Your task to perform on an android device: Open display settings Image 0: 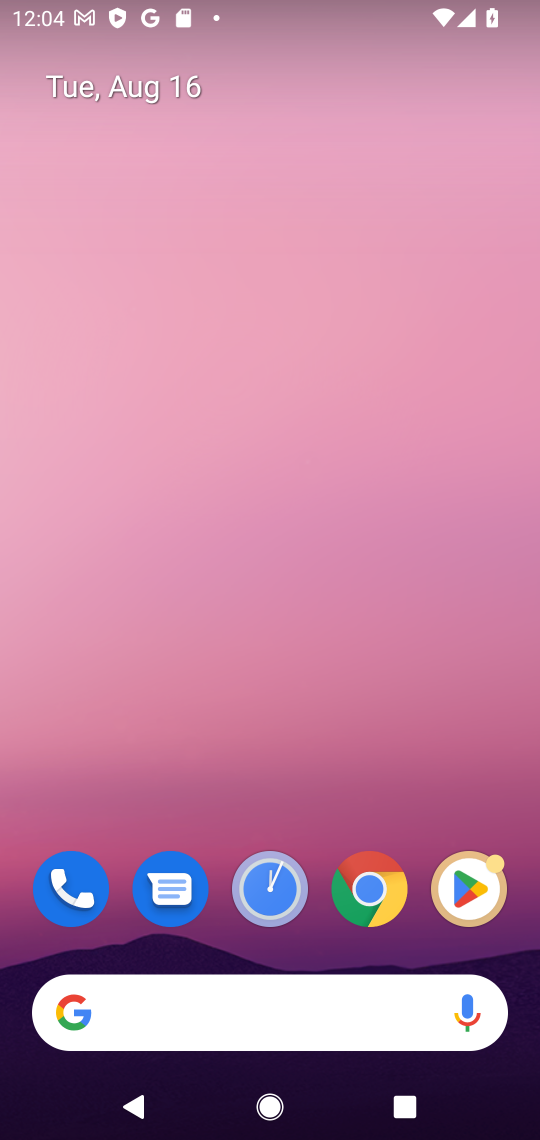
Step 0: drag from (245, 1010) to (226, 74)
Your task to perform on an android device: Open display settings Image 1: 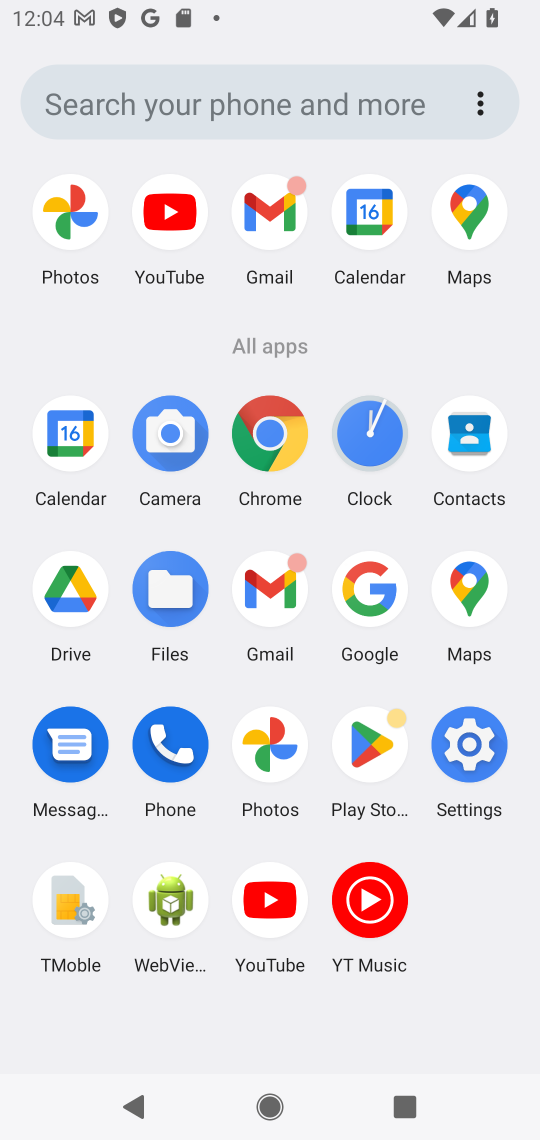
Step 1: click (474, 738)
Your task to perform on an android device: Open display settings Image 2: 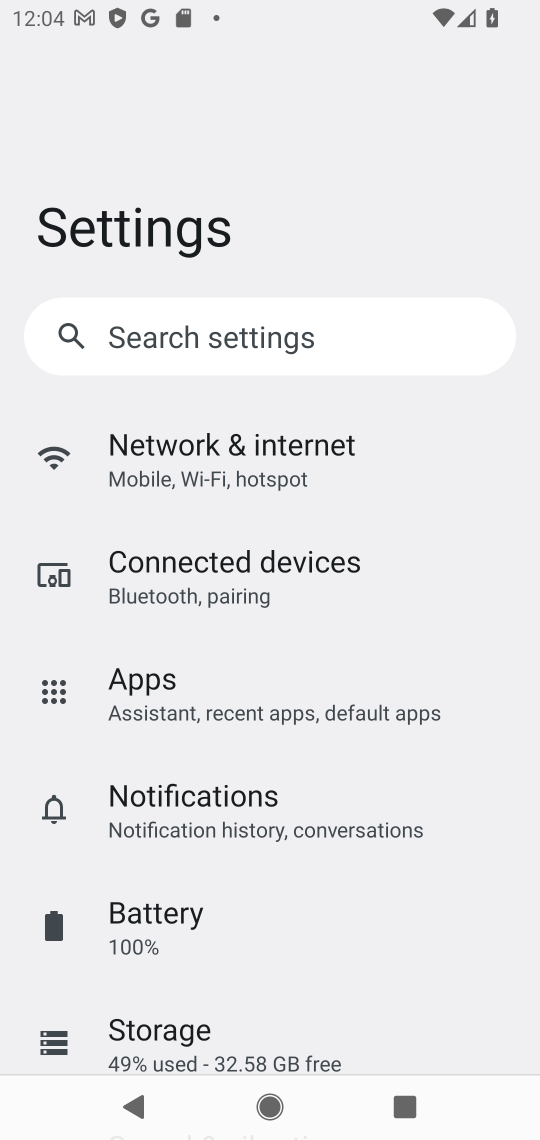
Step 2: drag from (218, 997) to (198, 315)
Your task to perform on an android device: Open display settings Image 3: 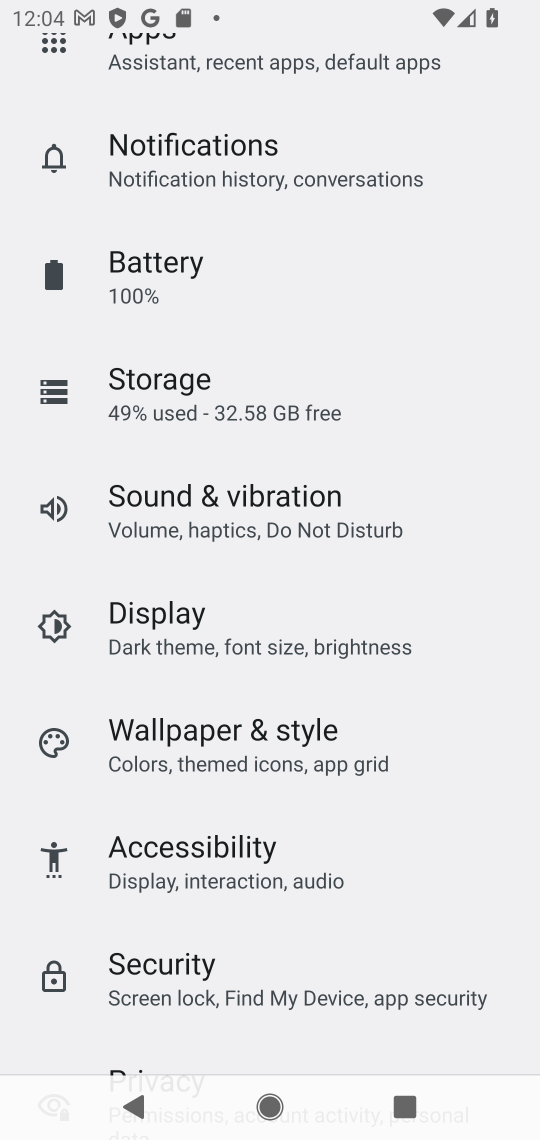
Step 3: click (167, 632)
Your task to perform on an android device: Open display settings Image 4: 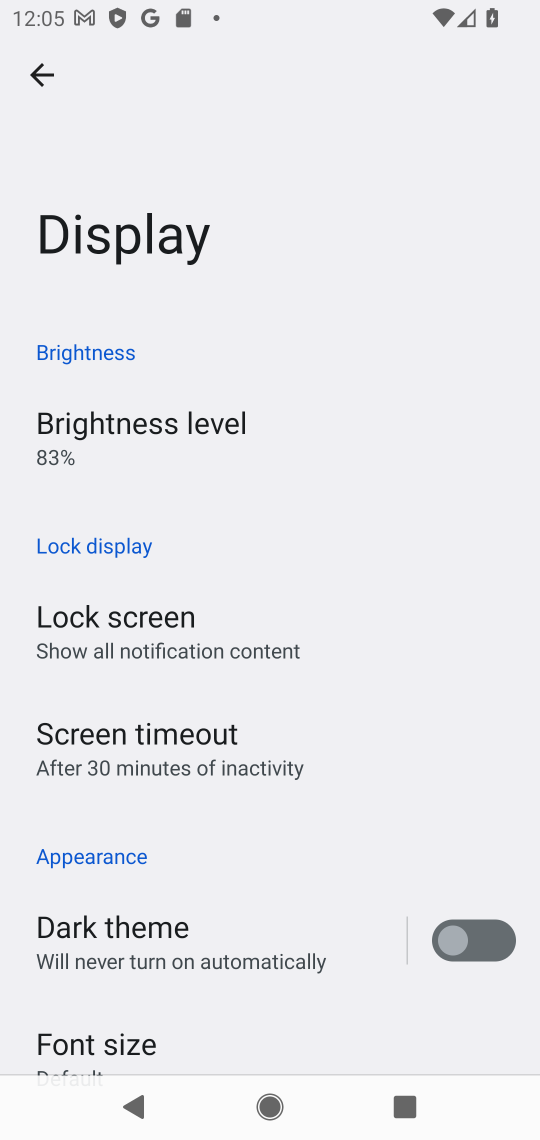
Step 4: task complete